Your task to perform on an android device: open app "PUBG MOBILE" (install if not already installed) and enter user name: "phenomenologically@gmail.com" and password: "artillery" Image 0: 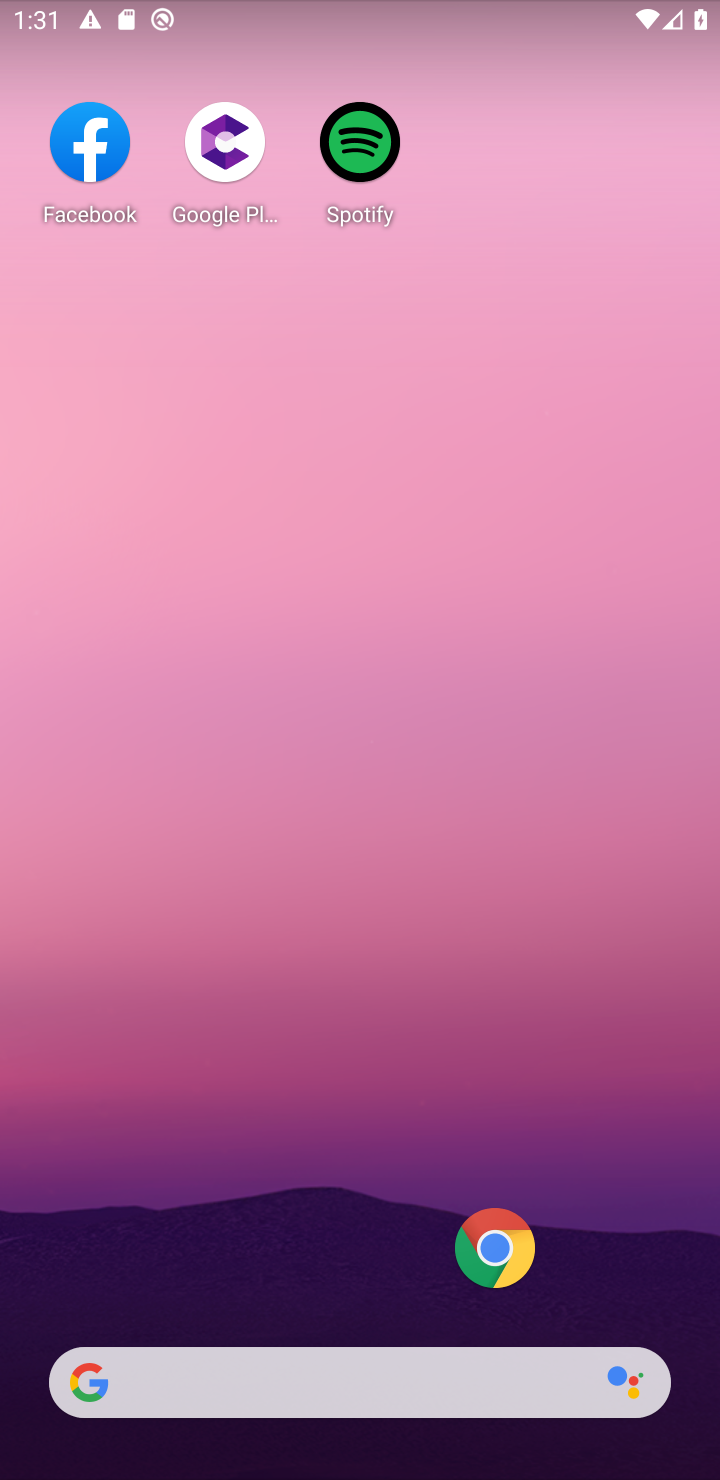
Step 0: drag from (247, 1084) to (245, 530)
Your task to perform on an android device: open app "PUBG MOBILE" (install if not already installed) and enter user name: "phenomenologically@gmail.com" and password: "artillery" Image 1: 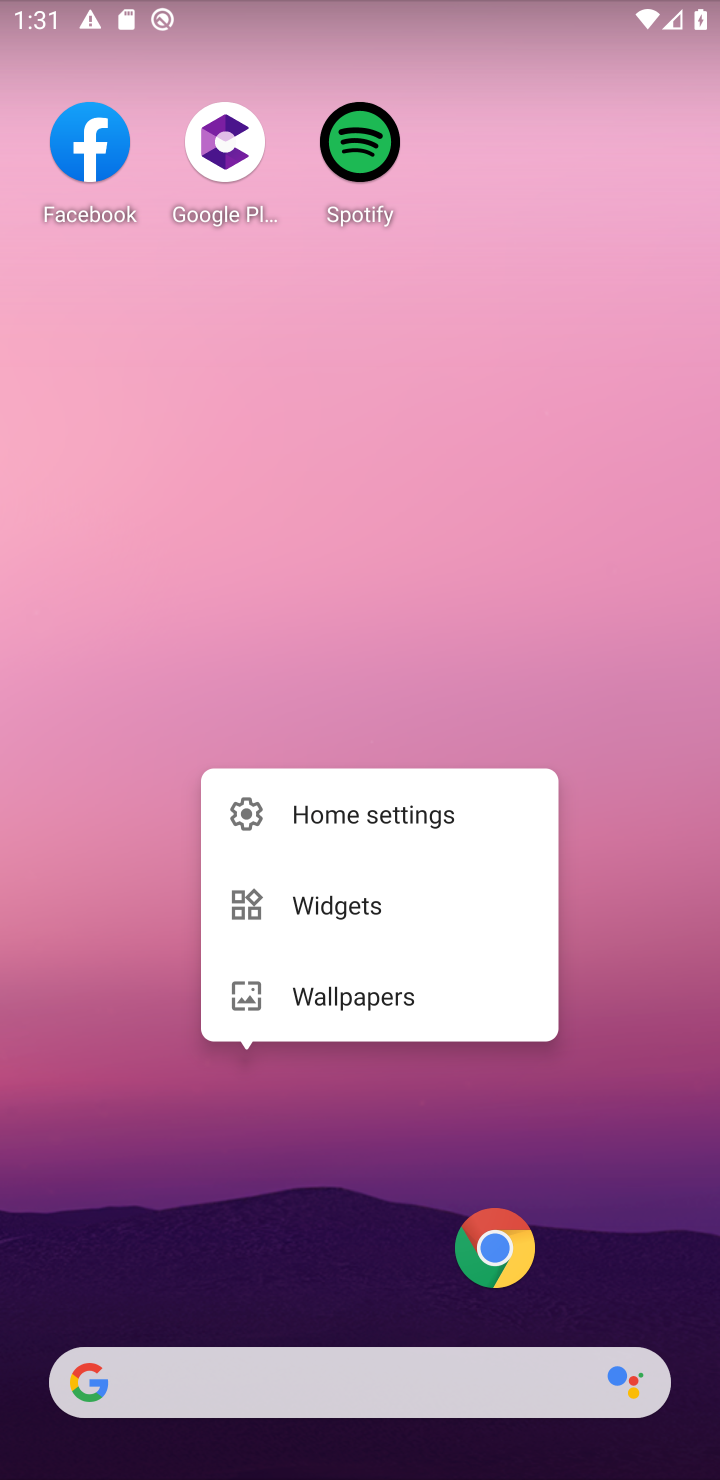
Step 1: click (587, 646)
Your task to perform on an android device: open app "PUBG MOBILE" (install if not already installed) and enter user name: "phenomenologically@gmail.com" and password: "artillery" Image 2: 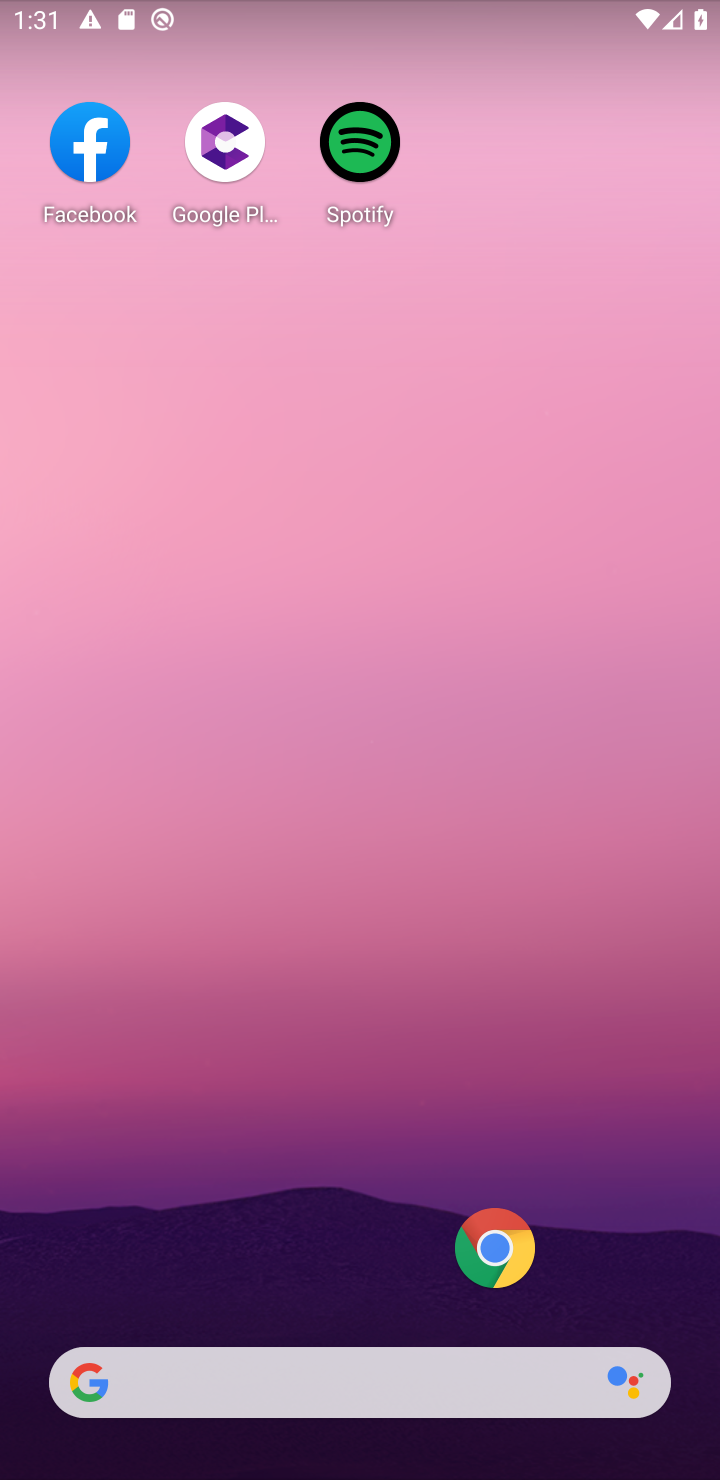
Step 2: drag from (328, 1294) to (404, 414)
Your task to perform on an android device: open app "PUBG MOBILE" (install if not already installed) and enter user name: "phenomenologically@gmail.com" and password: "artillery" Image 3: 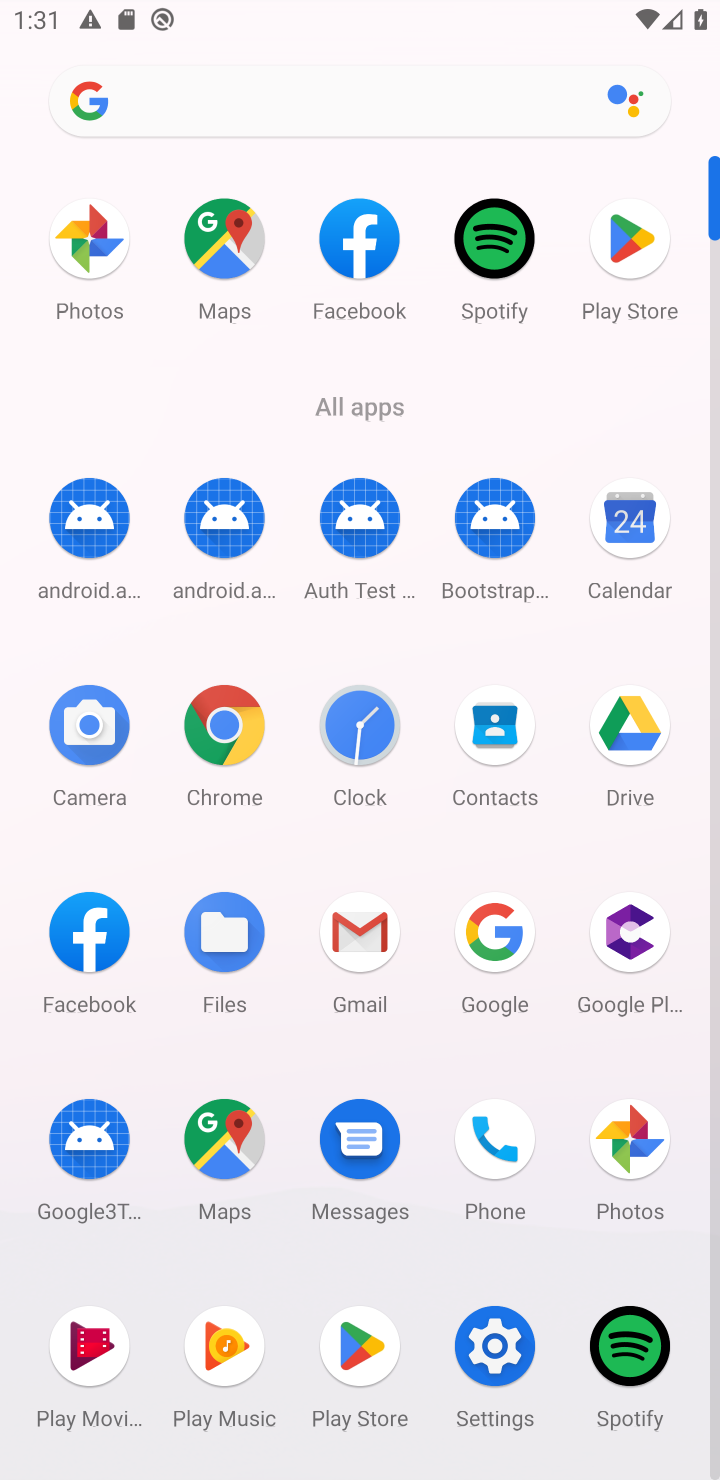
Step 3: click (614, 236)
Your task to perform on an android device: open app "PUBG MOBILE" (install if not already installed) and enter user name: "phenomenologically@gmail.com" and password: "artillery" Image 4: 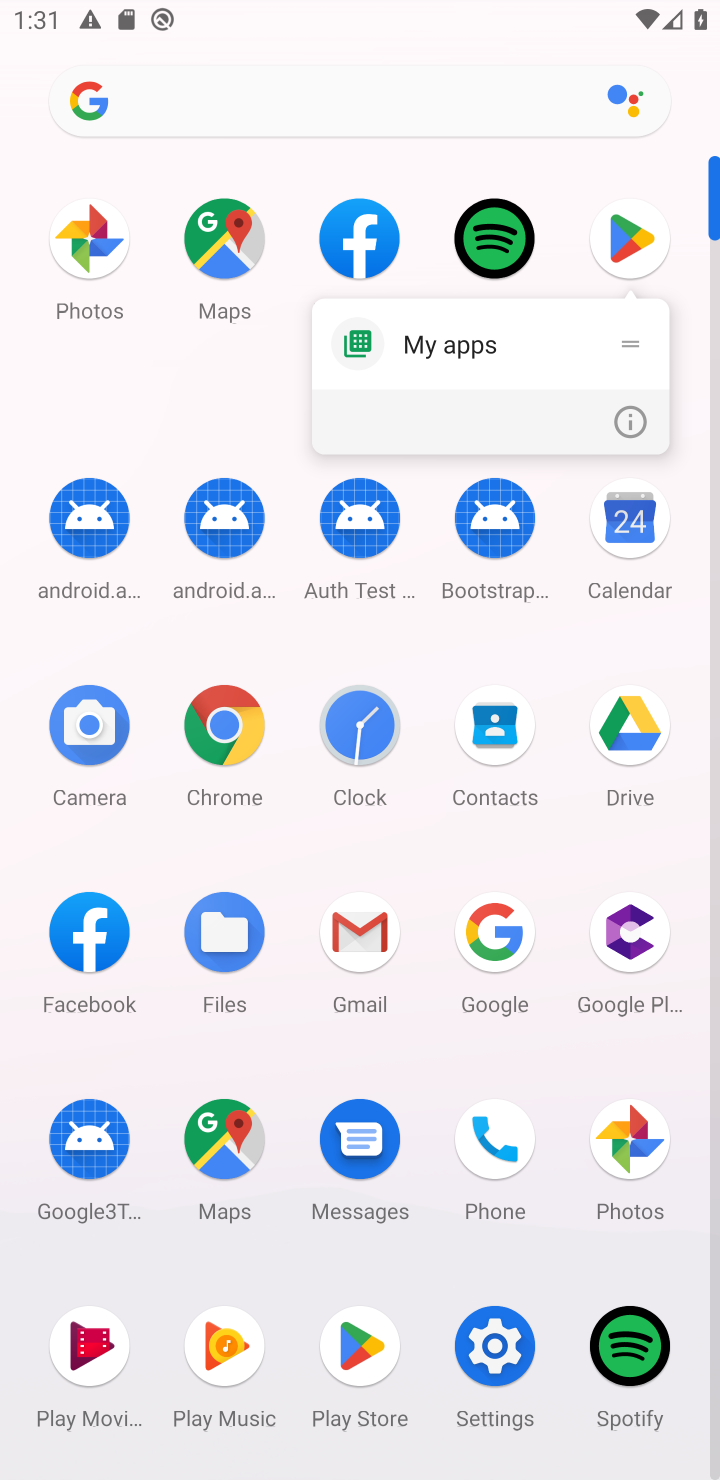
Step 4: click (614, 236)
Your task to perform on an android device: open app "PUBG MOBILE" (install if not already installed) and enter user name: "phenomenologically@gmail.com" and password: "artillery" Image 5: 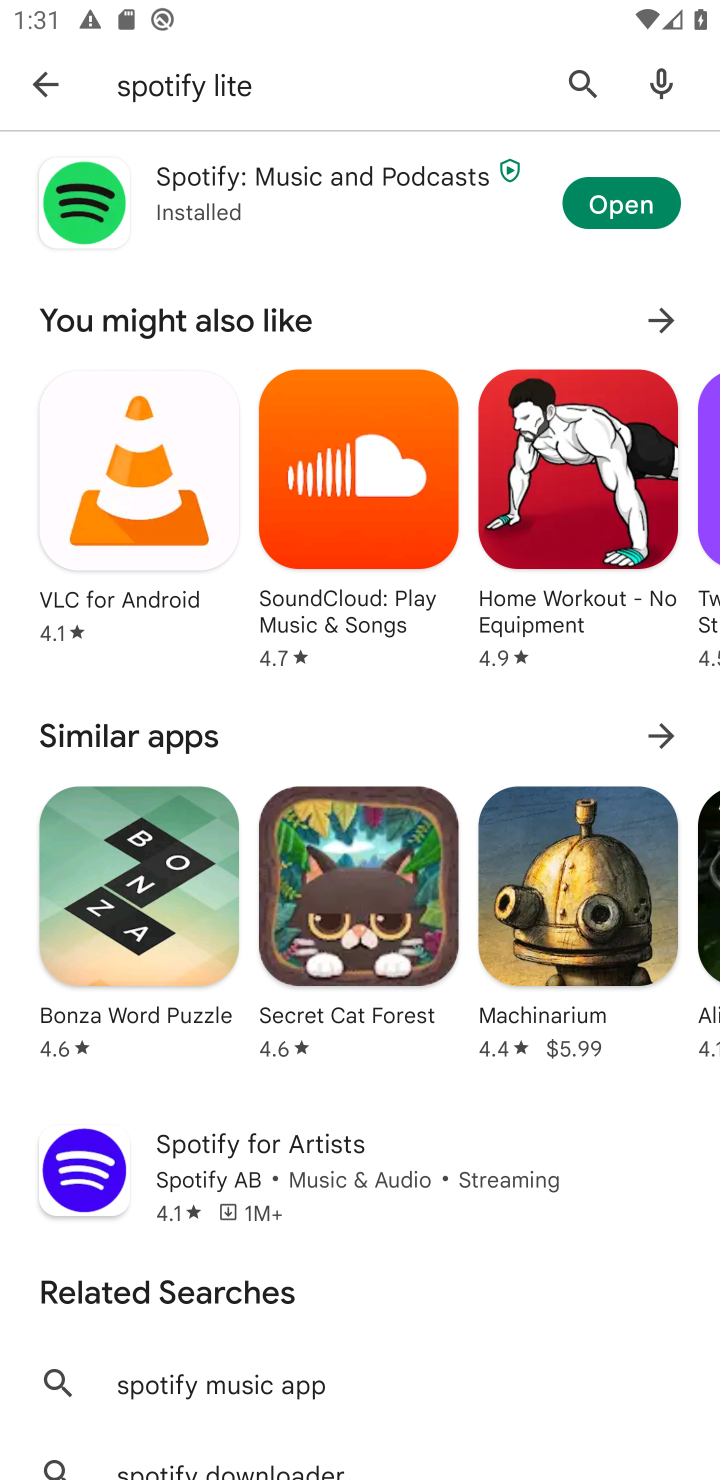
Step 5: click (47, 79)
Your task to perform on an android device: open app "PUBG MOBILE" (install if not already installed) and enter user name: "phenomenologically@gmail.com" and password: "artillery" Image 6: 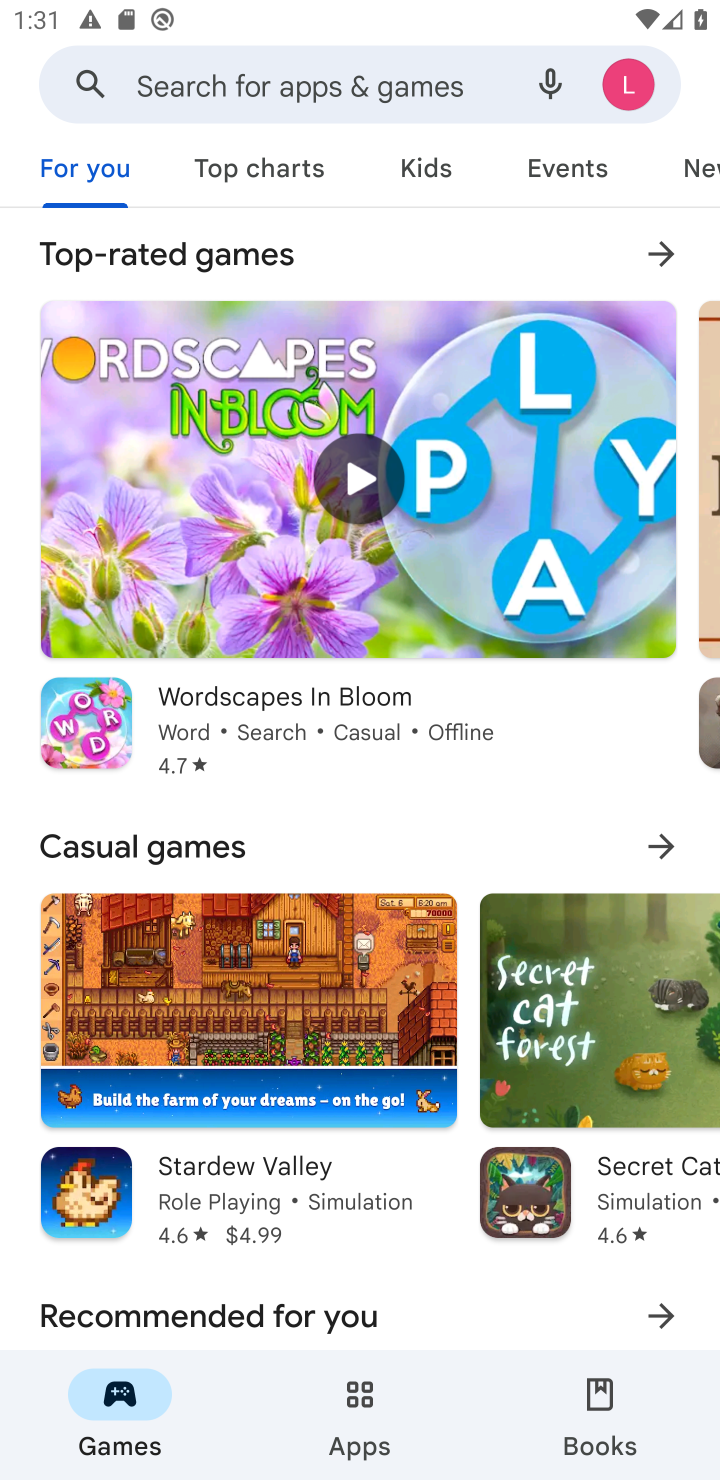
Step 6: click (313, 69)
Your task to perform on an android device: open app "PUBG MOBILE" (install if not already installed) and enter user name: "phenomenologically@gmail.com" and password: "artillery" Image 7: 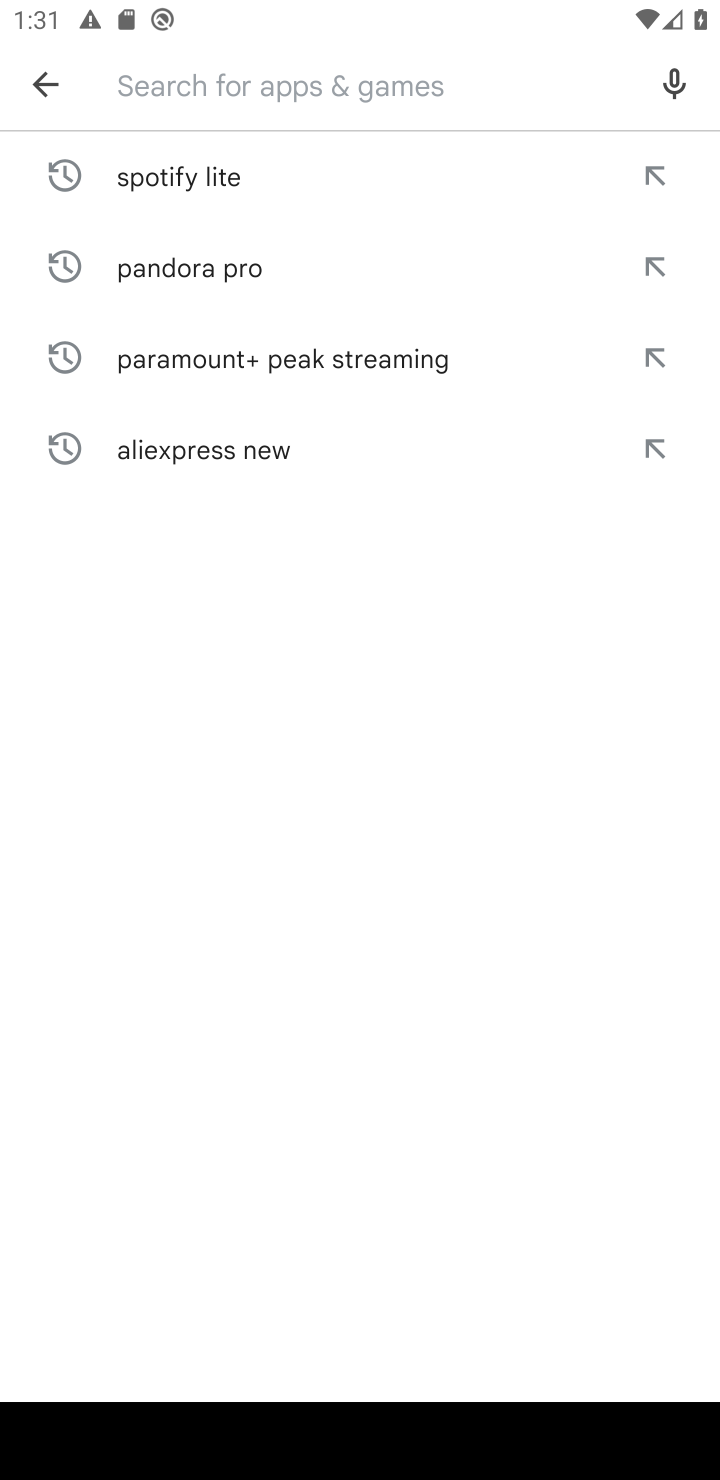
Step 7: type "PUBG MOBILE "
Your task to perform on an android device: open app "PUBG MOBILE" (install if not already installed) and enter user name: "phenomenologically@gmail.com" and password: "artillery" Image 8: 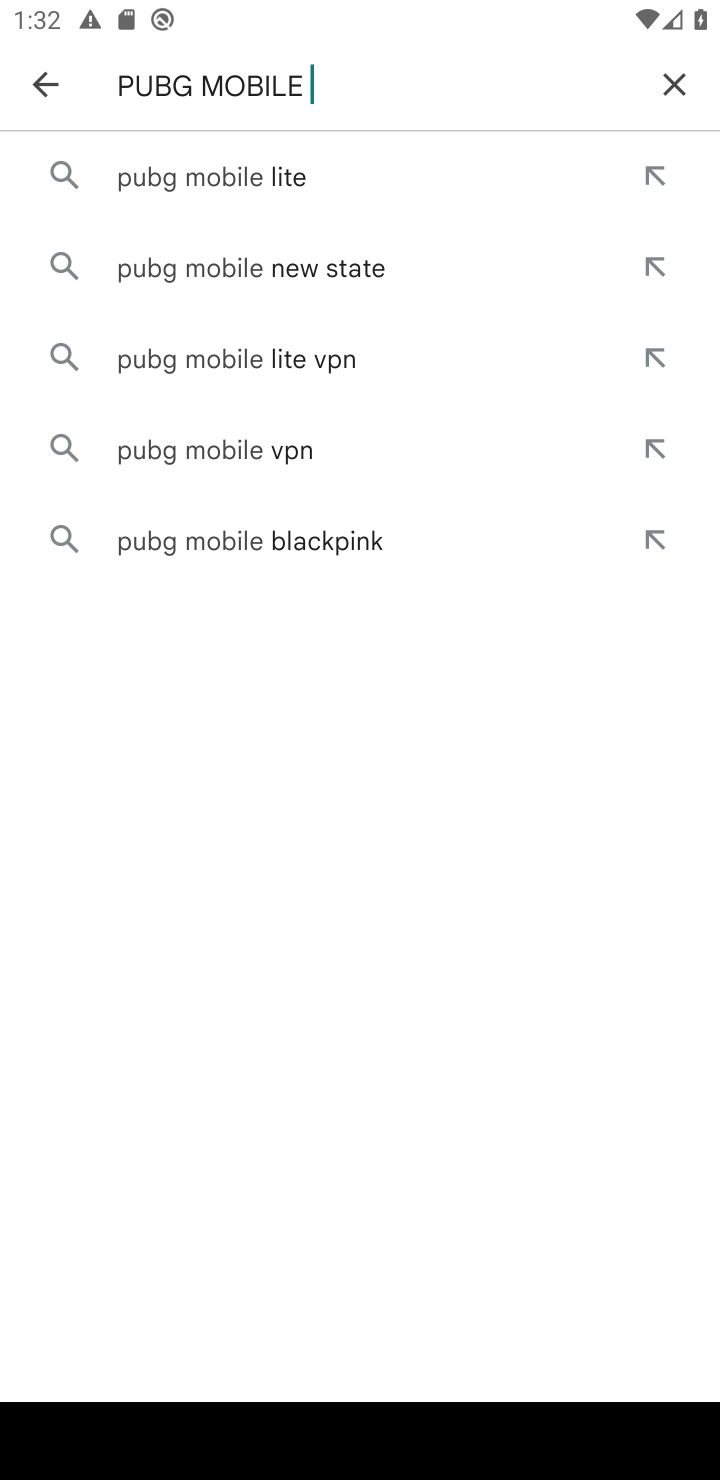
Step 8: click (218, 190)
Your task to perform on an android device: open app "PUBG MOBILE" (install if not already installed) and enter user name: "phenomenologically@gmail.com" and password: "artillery" Image 9: 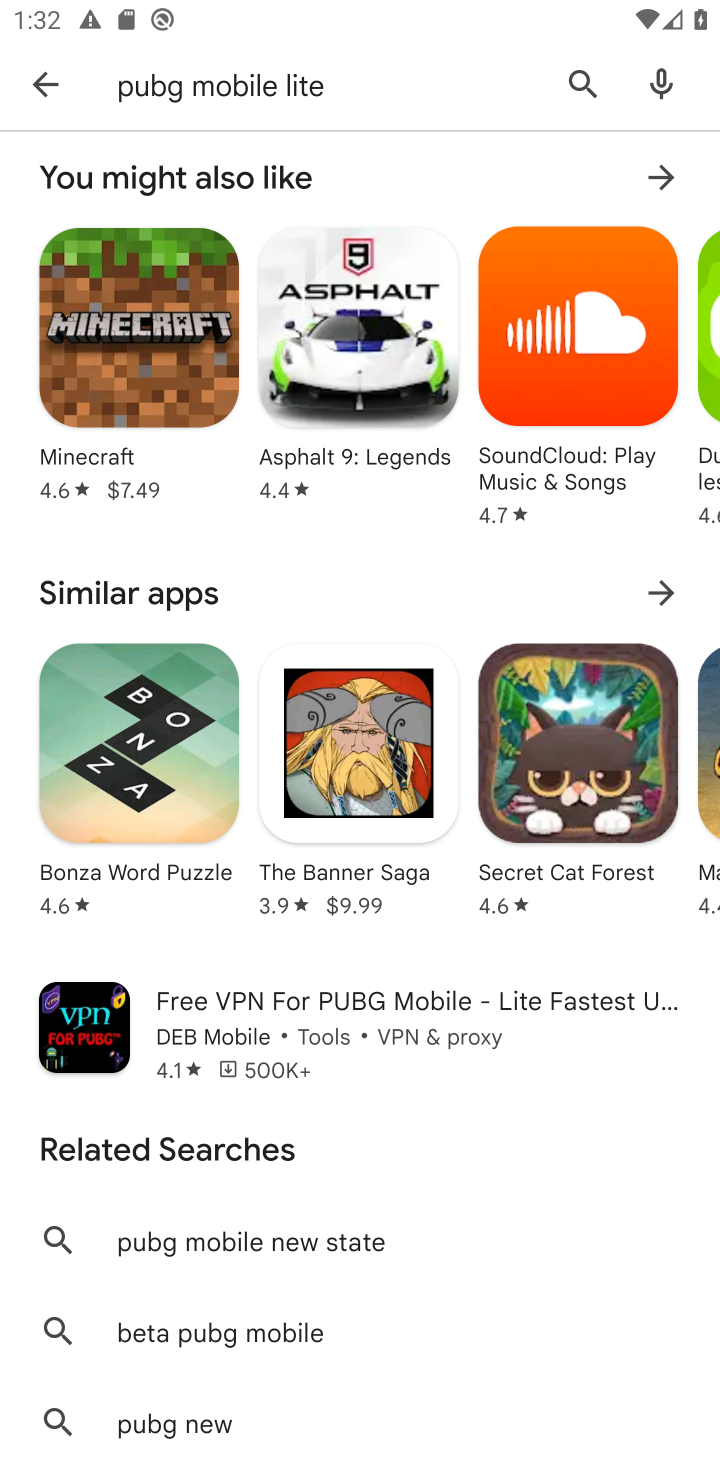
Step 9: click (260, 1236)
Your task to perform on an android device: open app "PUBG MOBILE" (install if not already installed) and enter user name: "phenomenologically@gmail.com" and password: "artillery" Image 10: 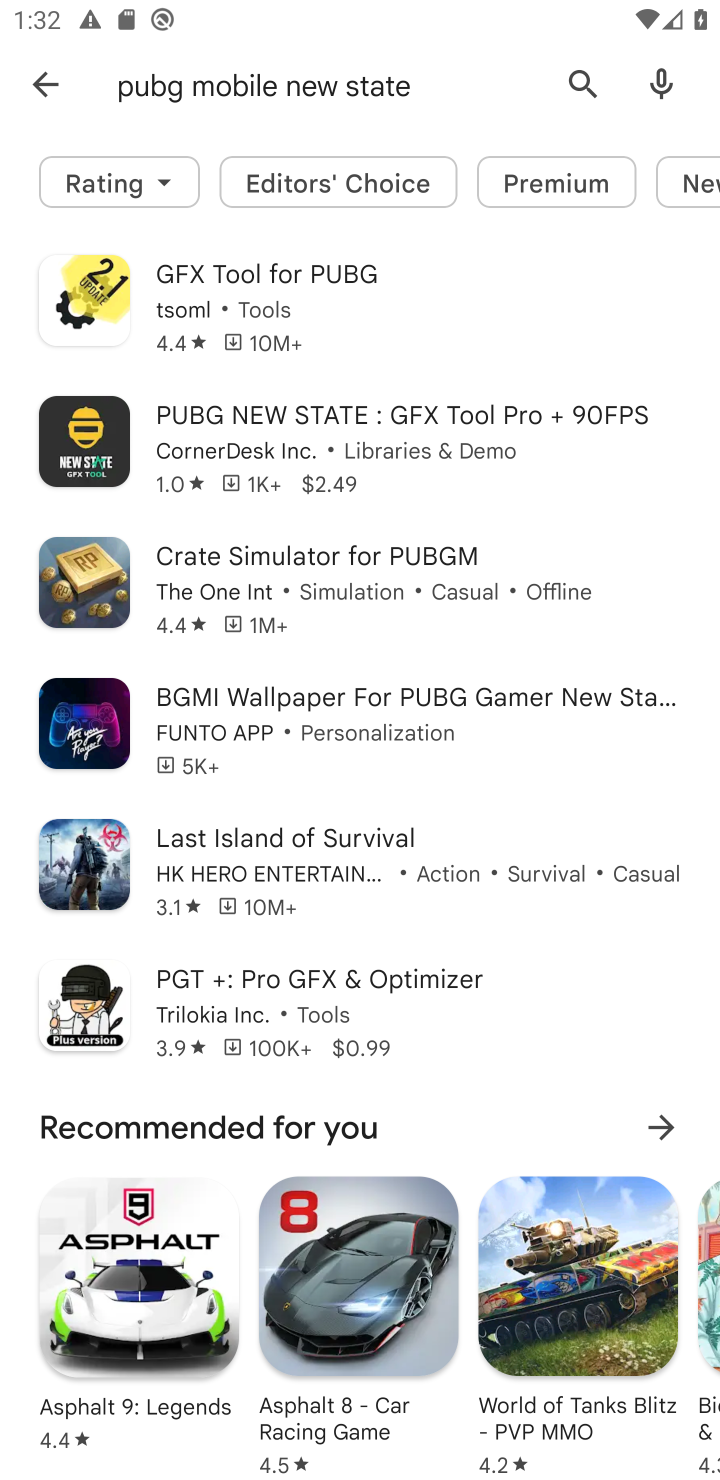
Step 10: task complete